Your task to perform on an android device: Show me recent news Image 0: 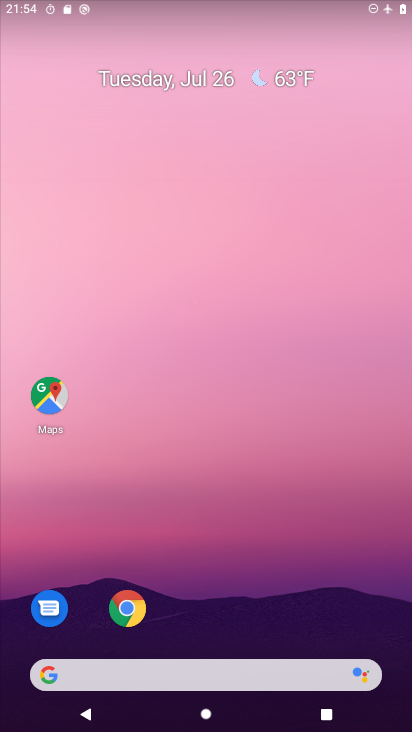
Step 0: click (120, 678)
Your task to perform on an android device: Show me recent news Image 1: 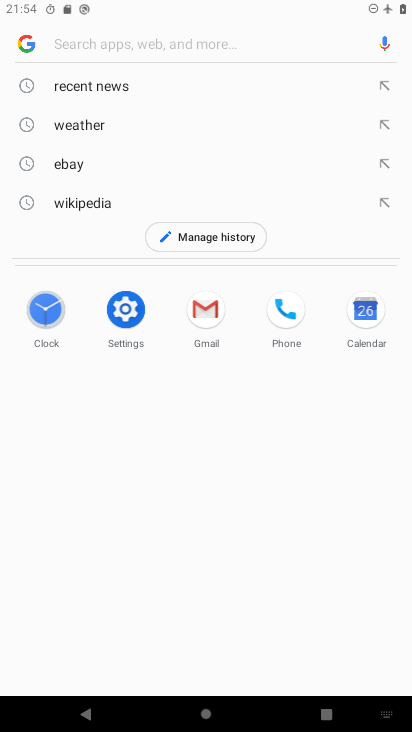
Step 1: click (88, 81)
Your task to perform on an android device: Show me recent news Image 2: 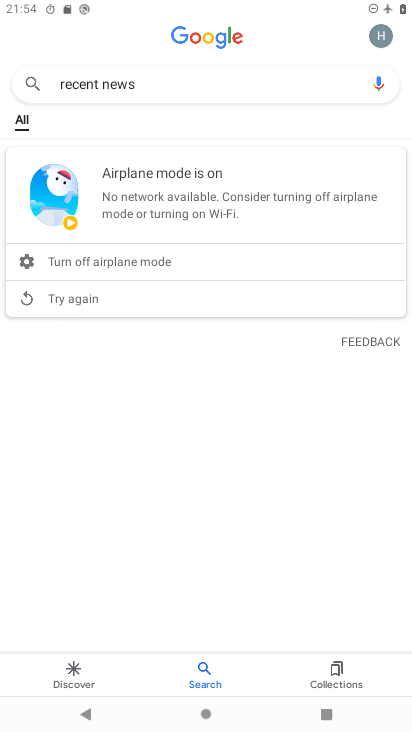
Step 2: drag from (332, 7) to (314, 578)
Your task to perform on an android device: Show me recent news Image 3: 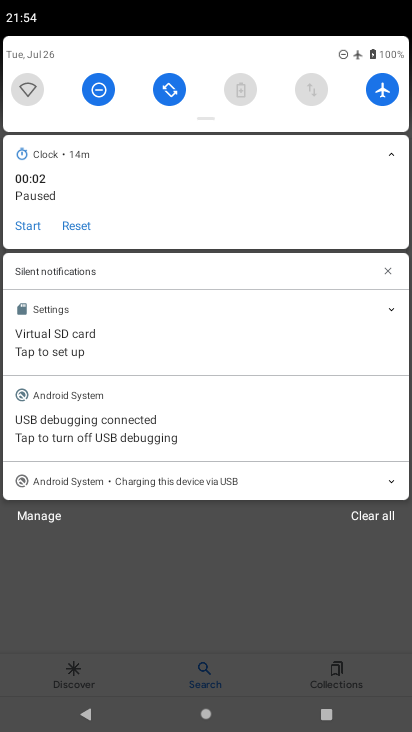
Step 3: click (376, 84)
Your task to perform on an android device: Show me recent news Image 4: 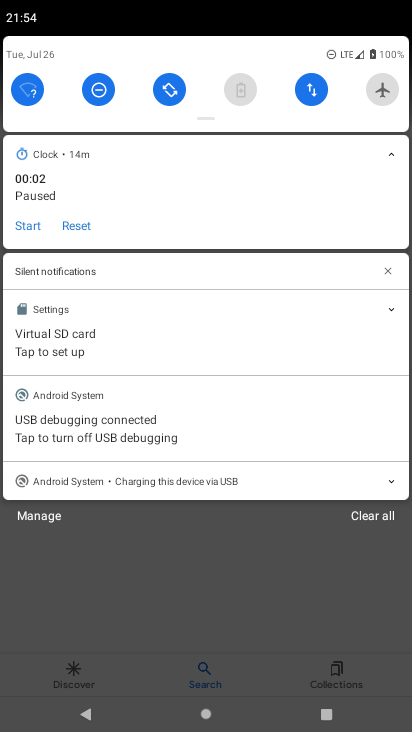
Step 4: click (366, 512)
Your task to perform on an android device: Show me recent news Image 5: 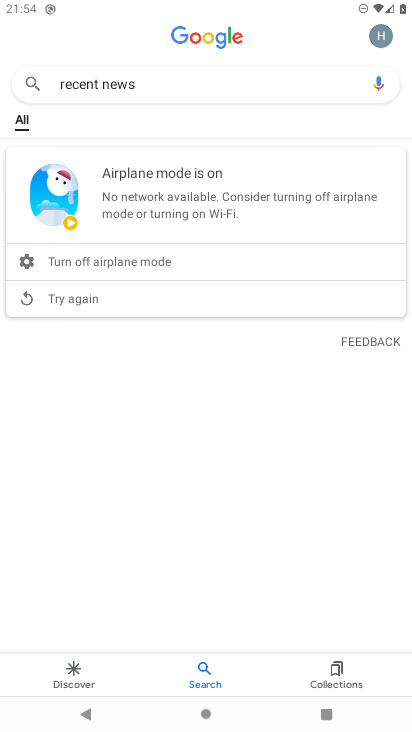
Step 5: task complete